Your task to perform on an android device: open app "Expedia: Hotels, Flights & Car" (install if not already installed) and go to login screen Image 0: 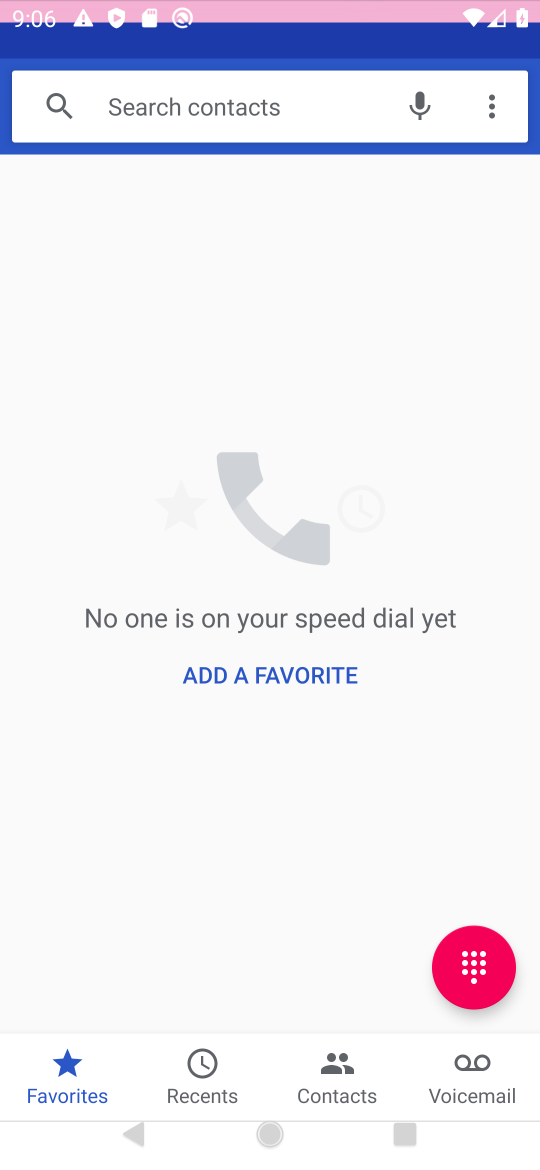
Step 0: press home button
Your task to perform on an android device: open app "Expedia: Hotels, Flights & Car" (install if not already installed) and go to login screen Image 1: 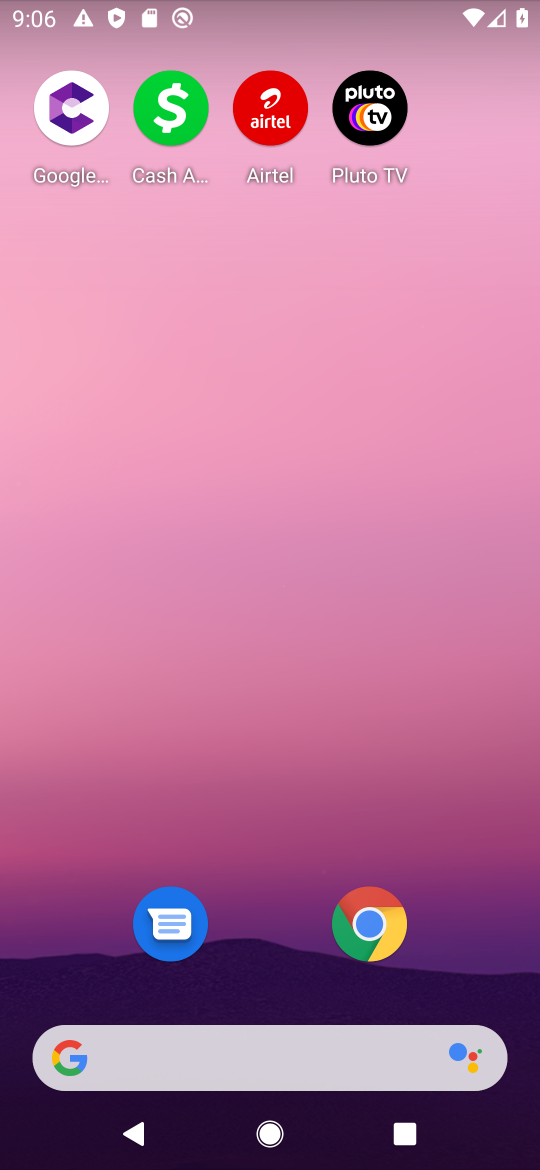
Step 1: drag from (461, 766) to (468, 87)
Your task to perform on an android device: open app "Expedia: Hotels, Flights & Car" (install if not already installed) and go to login screen Image 2: 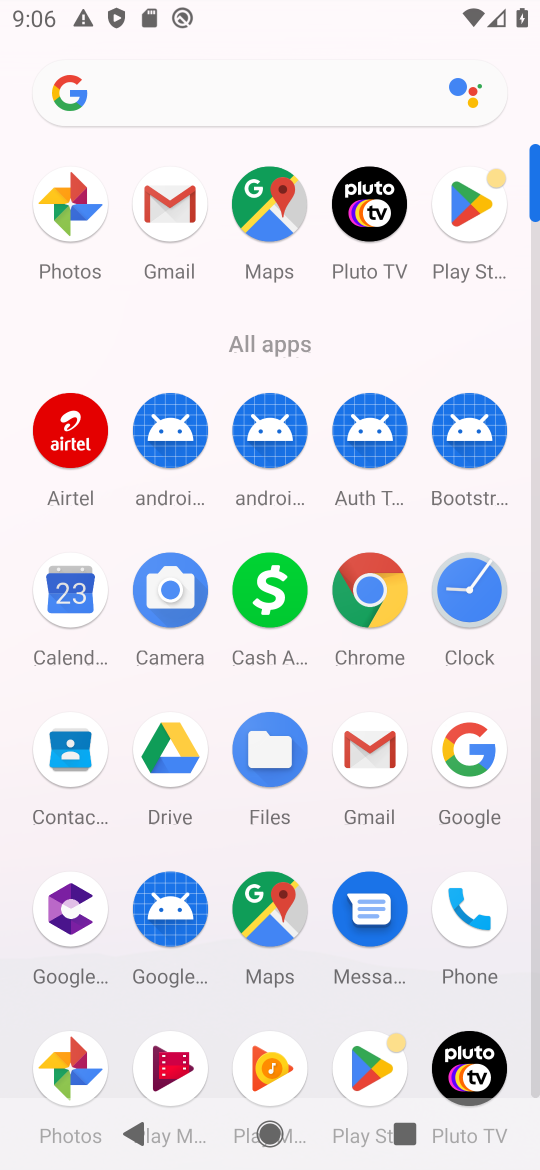
Step 2: click (467, 205)
Your task to perform on an android device: open app "Expedia: Hotels, Flights & Car" (install if not already installed) and go to login screen Image 3: 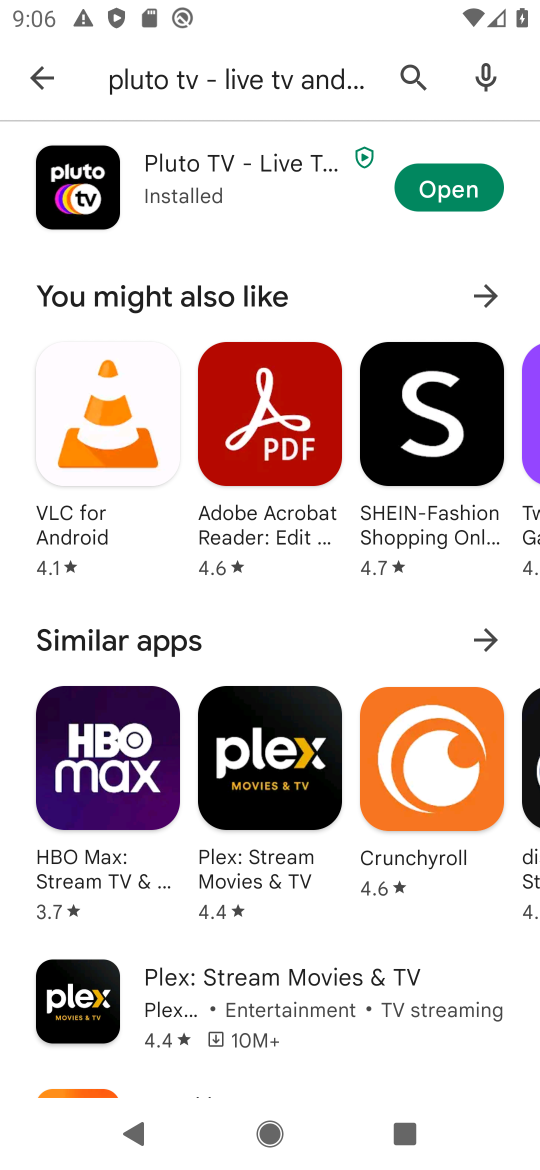
Step 3: press back button
Your task to perform on an android device: open app "Expedia: Hotels, Flights & Car" (install if not already installed) and go to login screen Image 4: 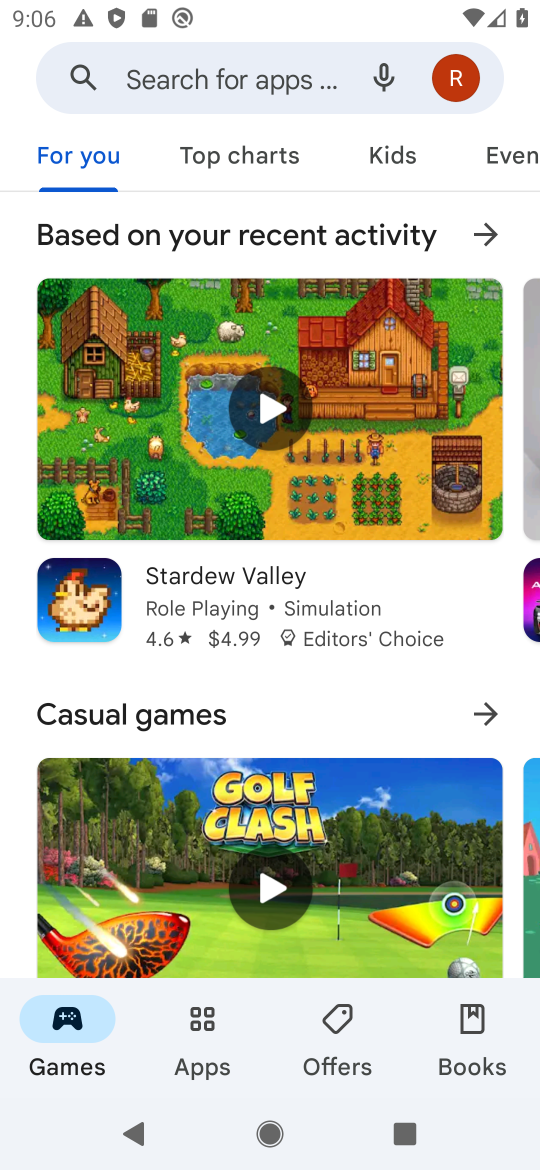
Step 4: click (245, 76)
Your task to perform on an android device: open app "Expedia: Hotels, Flights & Car" (install if not already installed) and go to login screen Image 5: 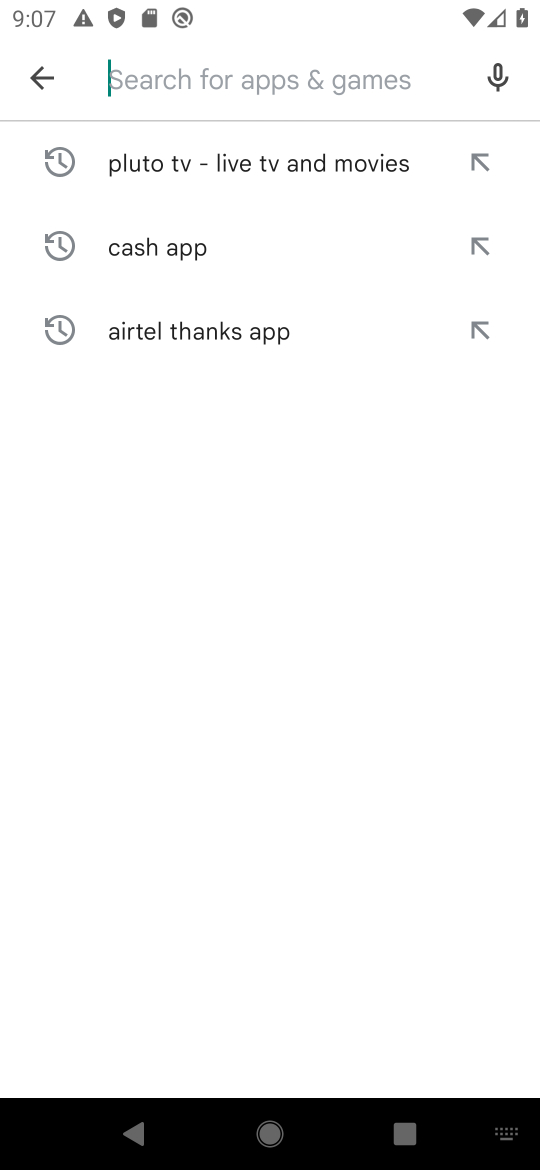
Step 5: type "Expedia: Hotels, Flights & Car"
Your task to perform on an android device: open app "Expedia: Hotels, Flights & Car" (install if not already installed) and go to login screen Image 6: 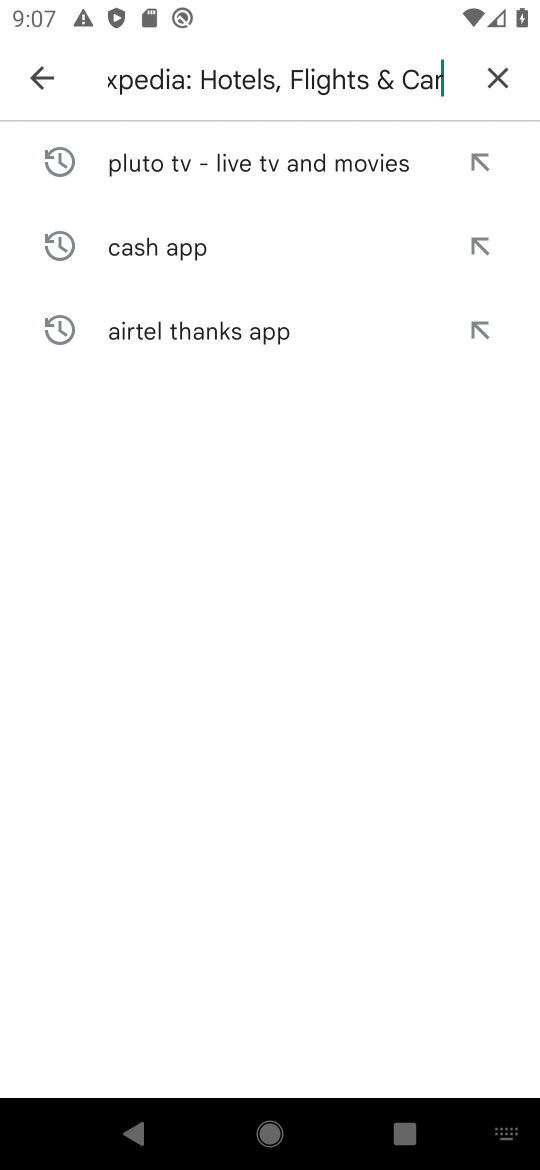
Step 6: press enter
Your task to perform on an android device: open app "Expedia: Hotels, Flights & Car" (install if not already installed) and go to login screen Image 7: 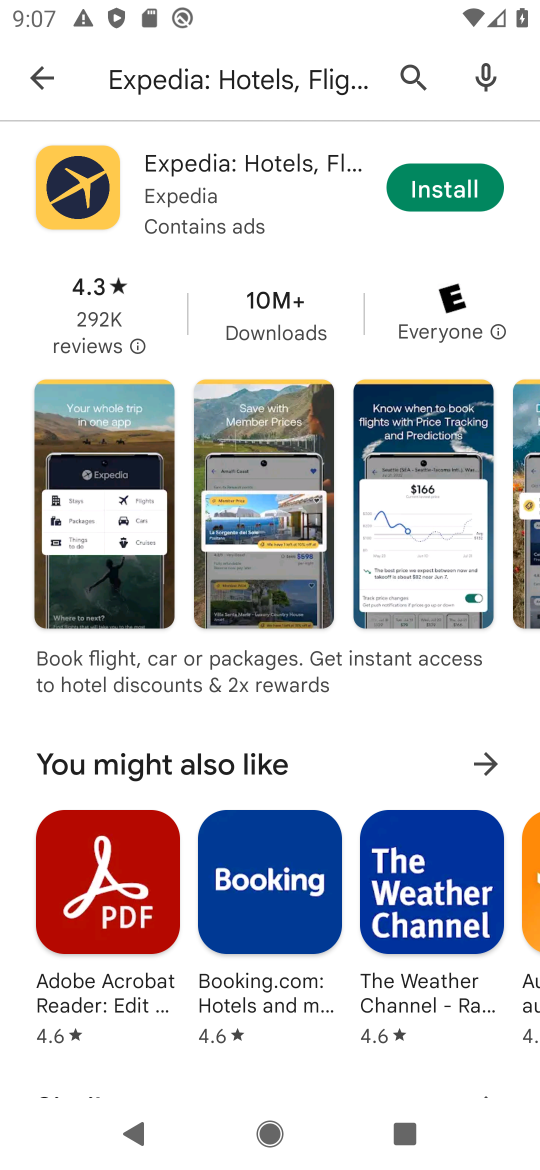
Step 7: click (446, 185)
Your task to perform on an android device: open app "Expedia: Hotels, Flights & Car" (install if not already installed) and go to login screen Image 8: 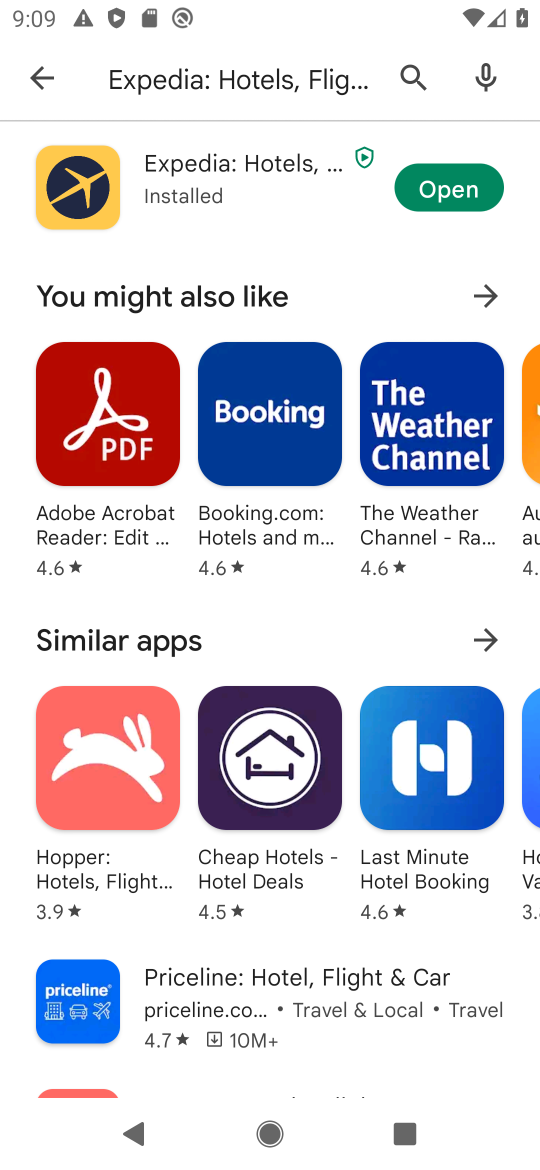
Step 8: click (494, 195)
Your task to perform on an android device: open app "Expedia: Hotels, Flights & Car" (install if not already installed) and go to login screen Image 9: 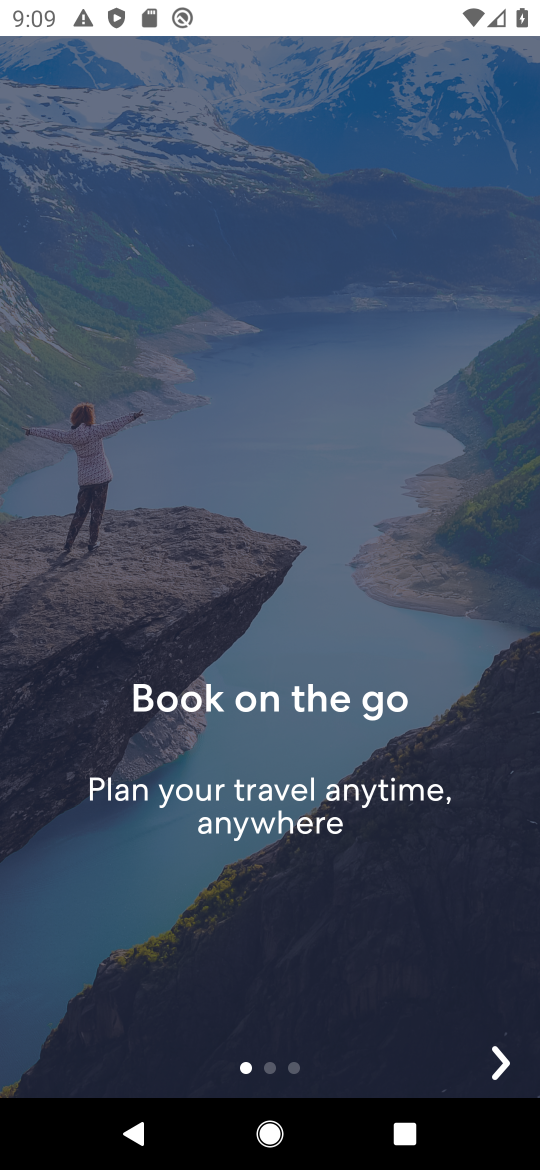
Step 9: click (505, 1072)
Your task to perform on an android device: open app "Expedia: Hotels, Flights & Car" (install if not already installed) and go to login screen Image 10: 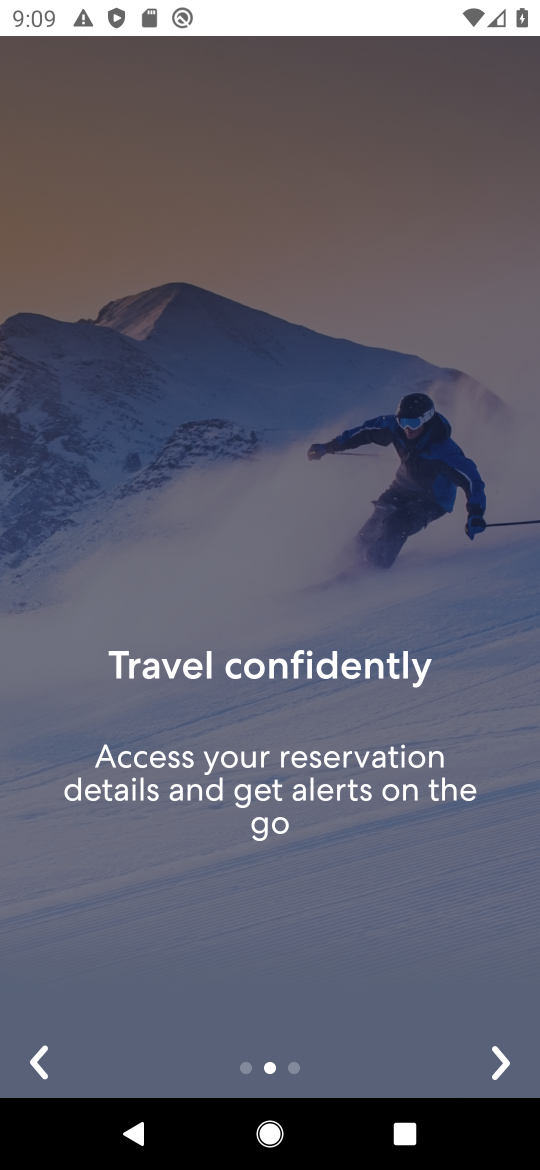
Step 10: click (501, 1072)
Your task to perform on an android device: open app "Expedia: Hotels, Flights & Car" (install if not already installed) and go to login screen Image 11: 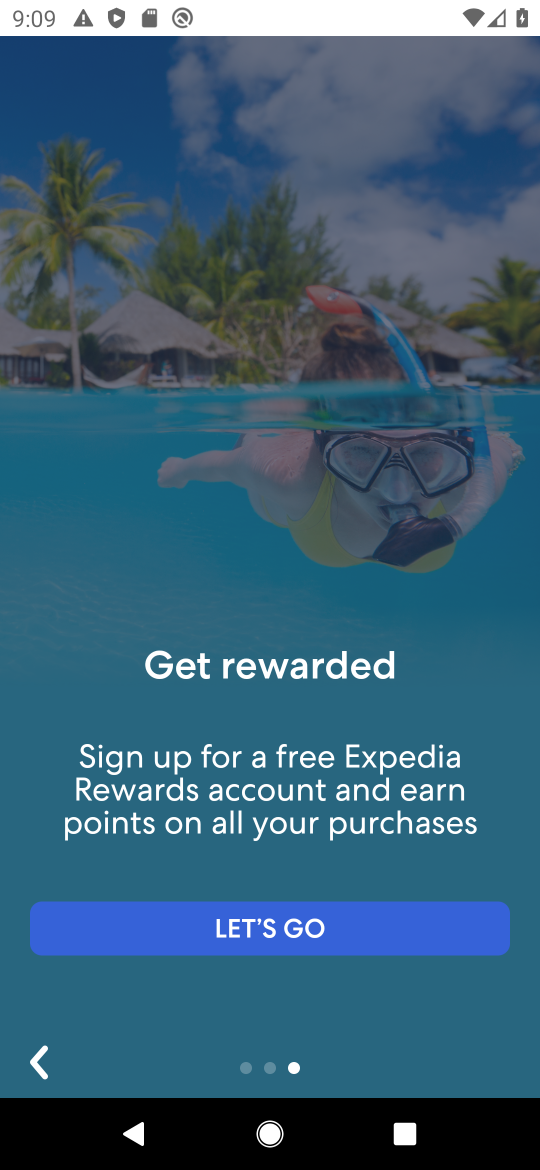
Step 11: click (320, 936)
Your task to perform on an android device: open app "Expedia: Hotels, Flights & Car" (install if not already installed) and go to login screen Image 12: 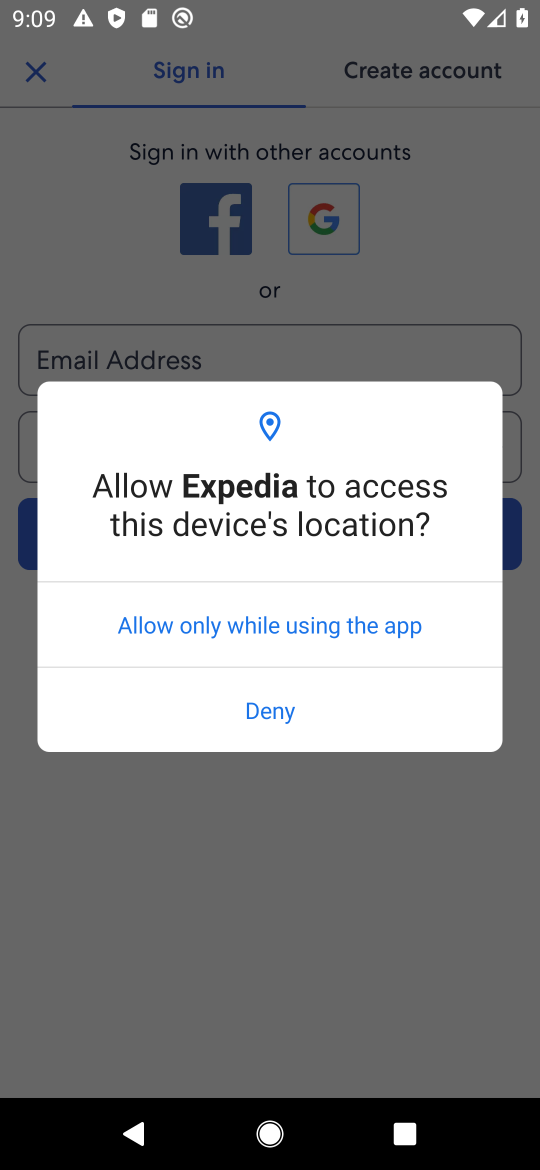
Step 12: click (317, 720)
Your task to perform on an android device: open app "Expedia: Hotels, Flights & Car" (install if not already installed) and go to login screen Image 13: 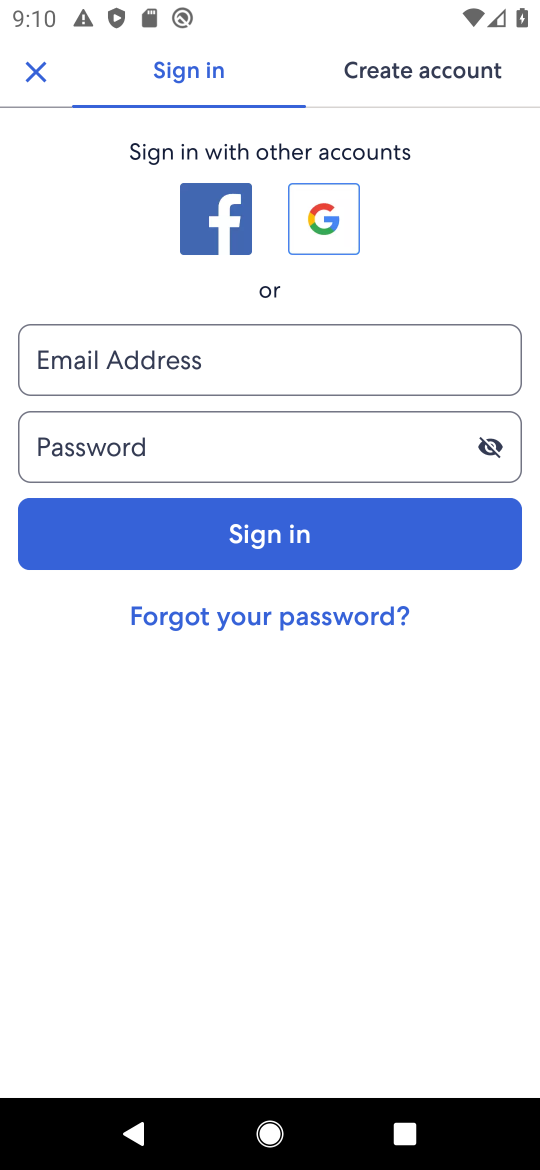
Step 13: task complete